Your task to perform on an android device: toggle pop-ups in chrome Image 0: 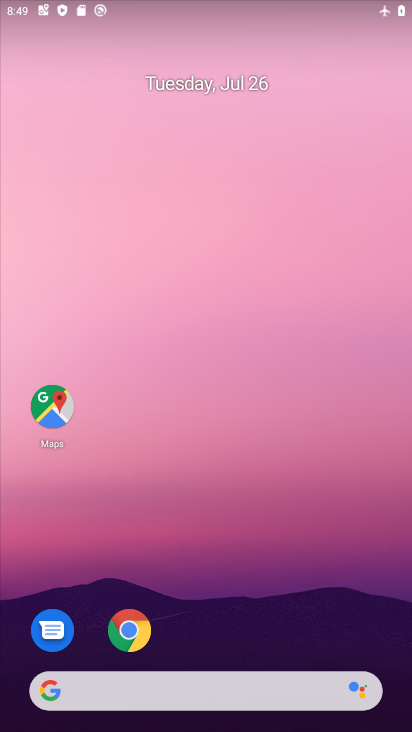
Step 0: click (113, 622)
Your task to perform on an android device: toggle pop-ups in chrome Image 1: 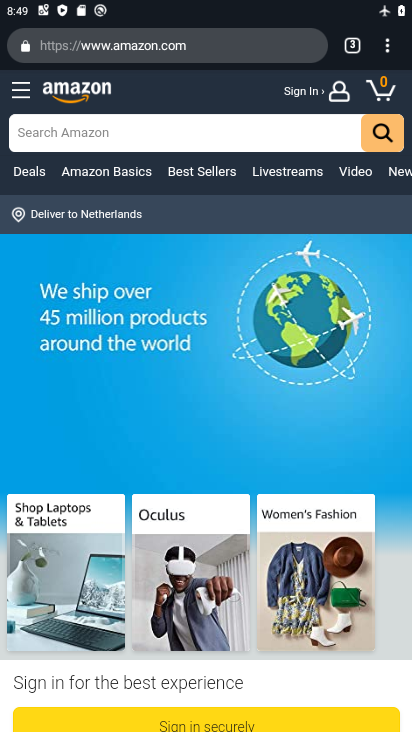
Step 1: click (385, 42)
Your task to perform on an android device: toggle pop-ups in chrome Image 2: 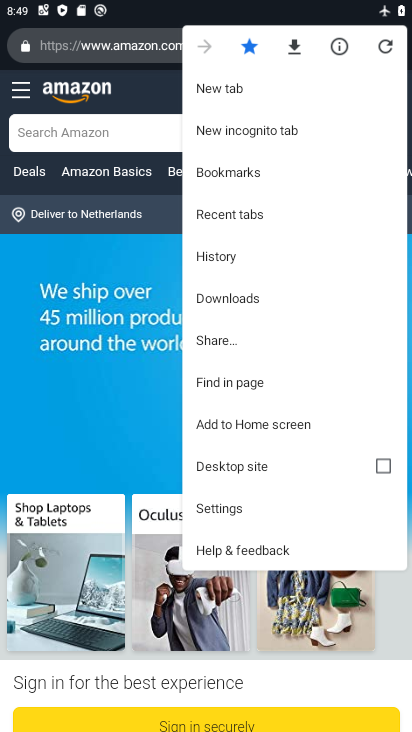
Step 2: click (243, 503)
Your task to perform on an android device: toggle pop-ups in chrome Image 3: 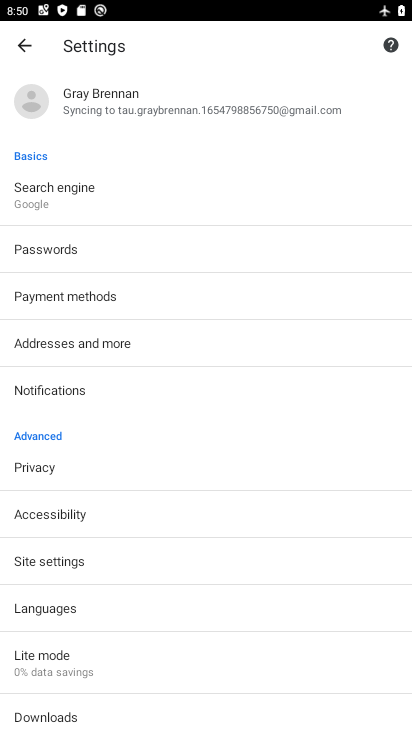
Step 3: click (135, 552)
Your task to perform on an android device: toggle pop-ups in chrome Image 4: 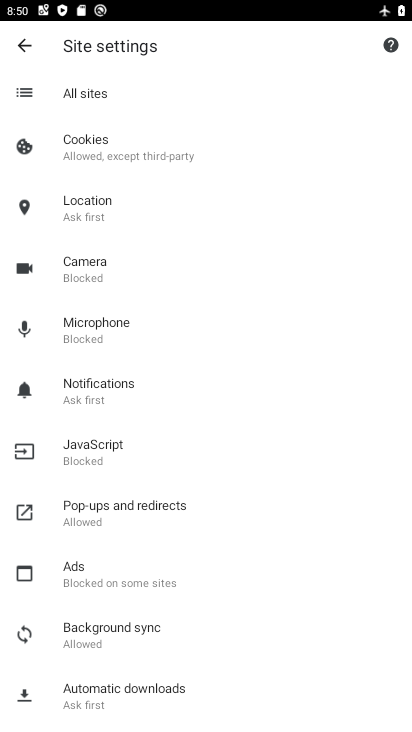
Step 4: click (150, 513)
Your task to perform on an android device: toggle pop-ups in chrome Image 5: 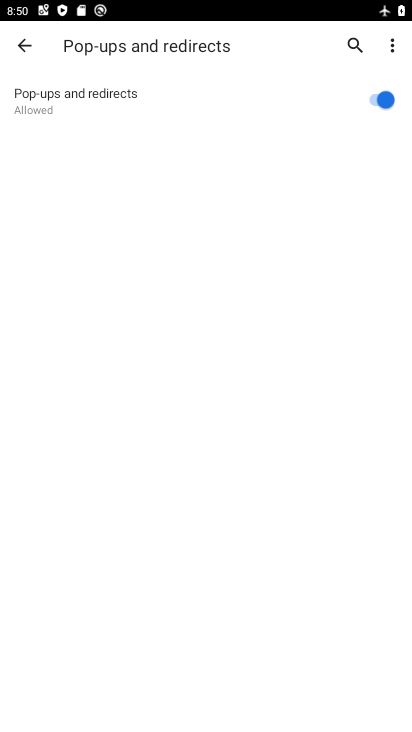
Step 5: click (347, 94)
Your task to perform on an android device: toggle pop-ups in chrome Image 6: 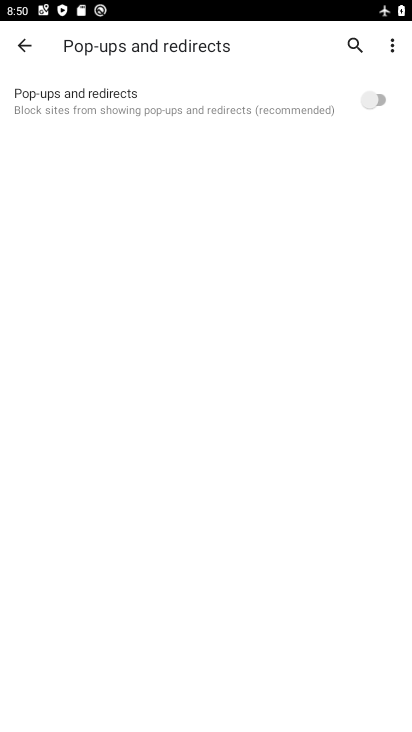
Step 6: task complete